Your task to perform on an android device: delete location history Image 0: 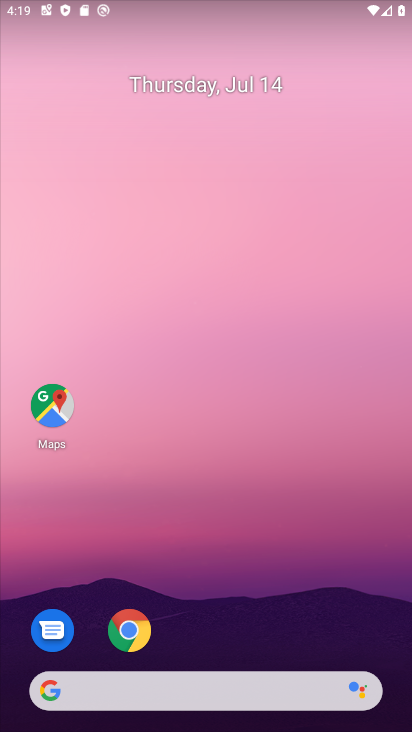
Step 0: drag from (261, 683) to (363, 32)
Your task to perform on an android device: delete location history Image 1: 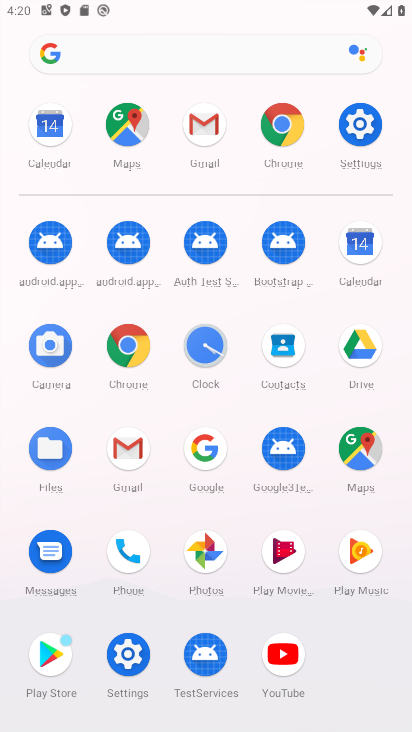
Step 1: click (352, 440)
Your task to perform on an android device: delete location history Image 2: 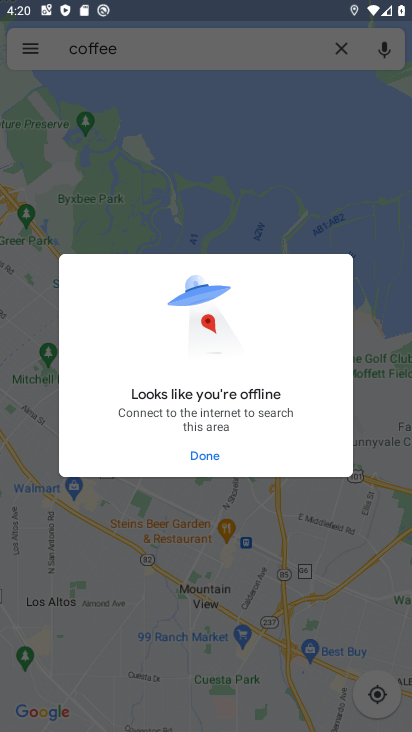
Step 2: click (371, 495)
Your task to perform on an android device: delete location history Image 3: 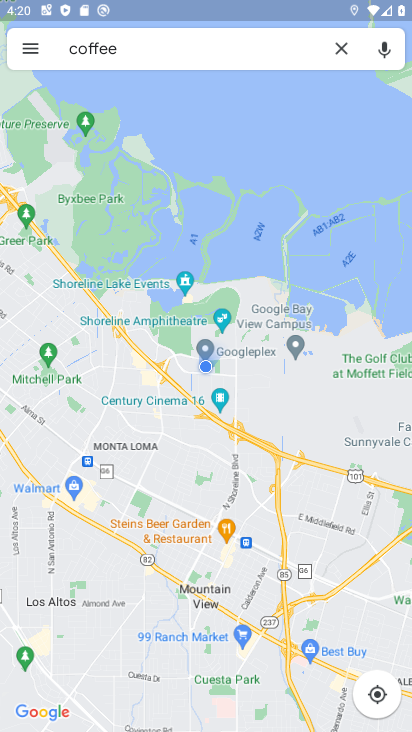
Step 3: click (28, 42)
Your task to perform on an android device: delete location history Image 4: 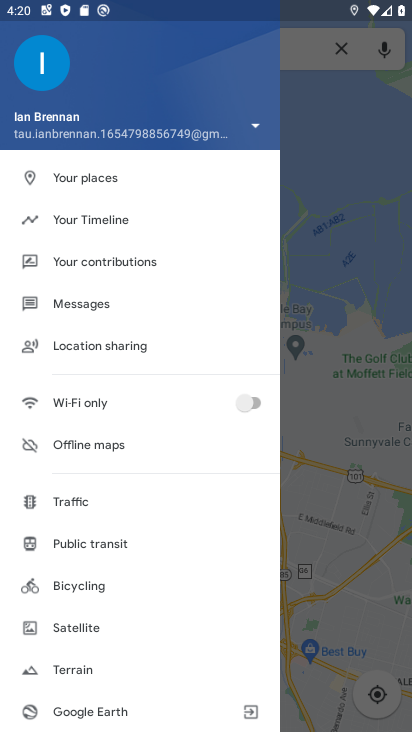
Step 4: click (121, 218)
Your task to perform on an android device: delete location history Image 5: 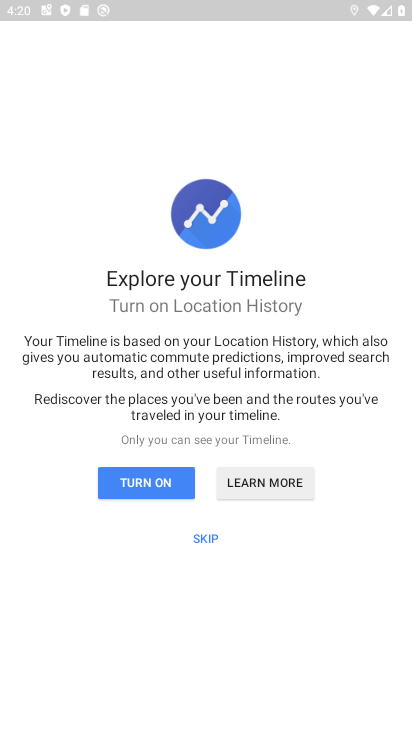
Step 5: click (197, 529)
Your task to perform on an android device: delete location history Image 6: 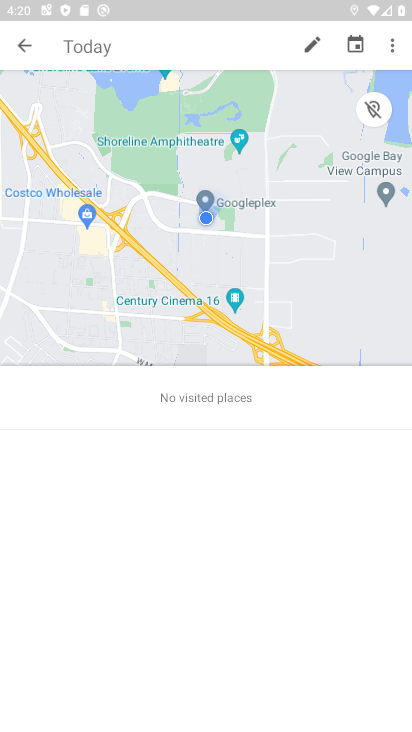
Step 6: click (382, 39)
Your task to perform on an android device: delete location history Image 7: 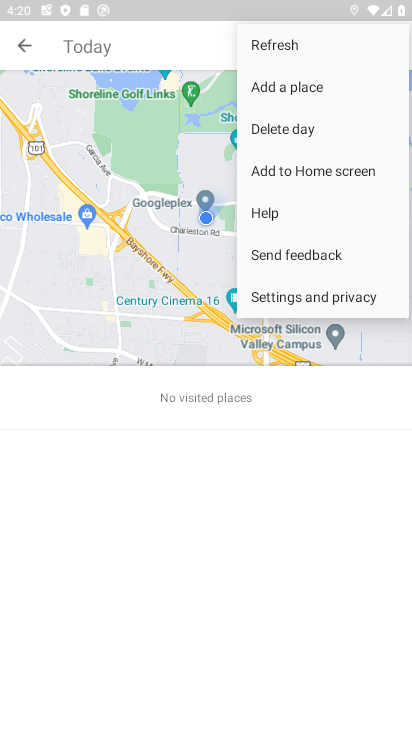
Step 7: click (308, 294)
Your task to perform on an android device: delete location history Image 8: 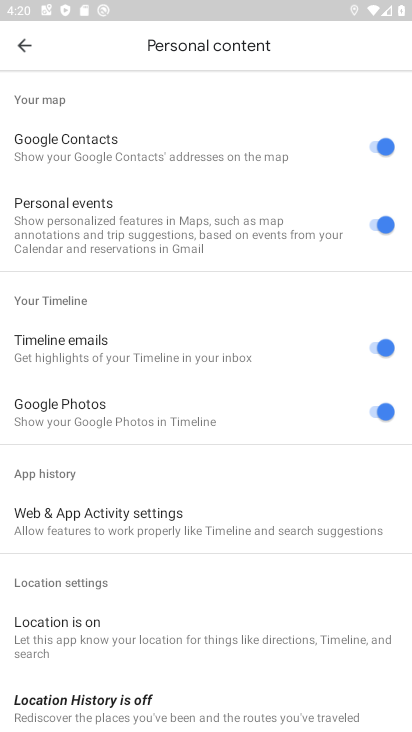
Step 8: drag from (163, 712) to (236, 407)
Your task to perform on an android device: delete location history Image 9: 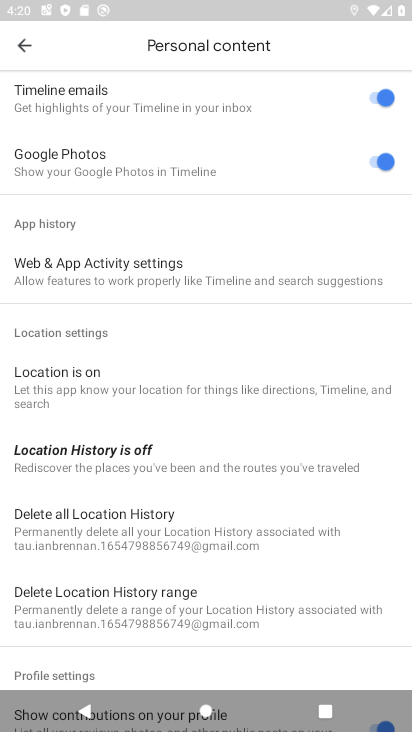
Step 9: click (175, 547)
Your task to perform on an android device: delete location history Image 10: 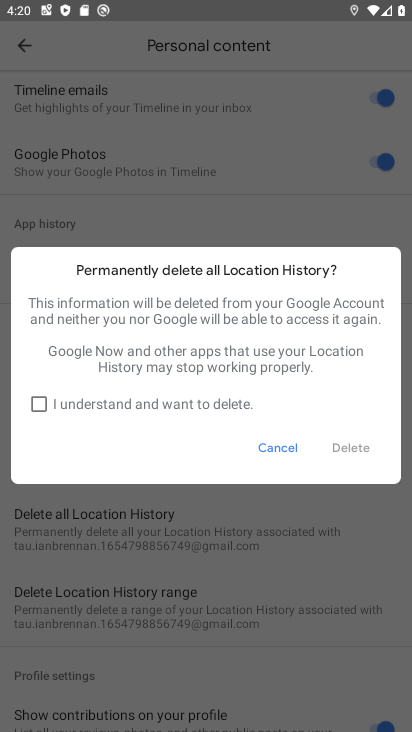
Step 10: click (30, 397)
Your task to perform on an android device: delete location history Image 11: 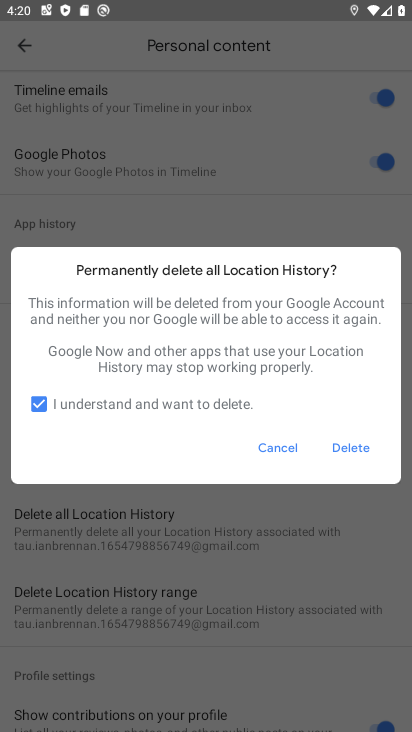
Step 11: click (350, 446)
Your task to perform on an android device: delete location history Image 12: 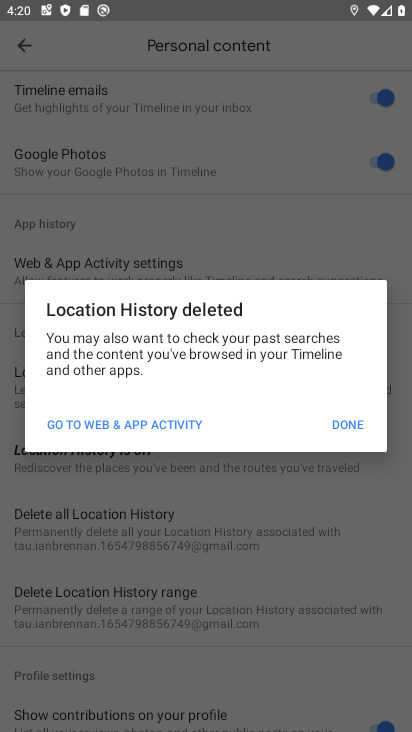
Step 12: click (353, 419)
Your task to perform on an android device: delete location history Image 13: 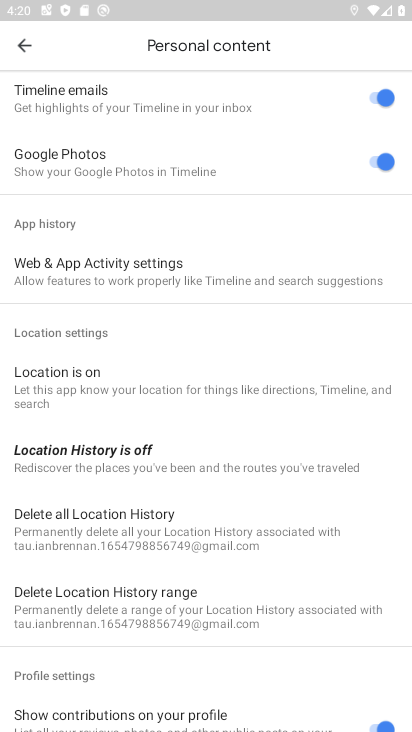
Step 13: task complete